Your task to perform on an android device: uninstall "DoorDash - Dasher" Image 0: 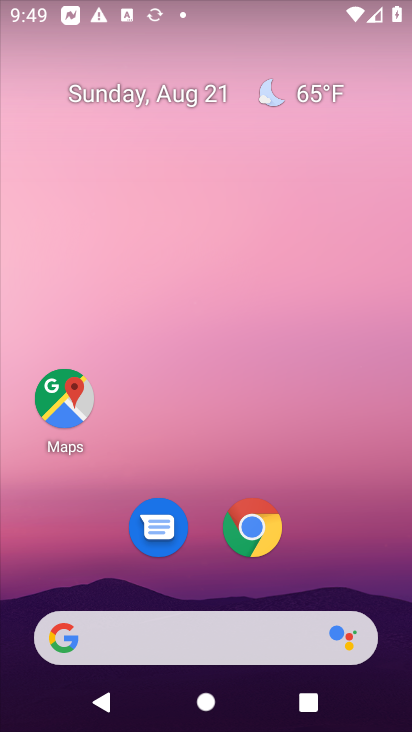
Step 0: drag from (205, 578) to (237, 6)
Your task to perform on an android device: uninstall "DoorDash - Dasher" Image 1: 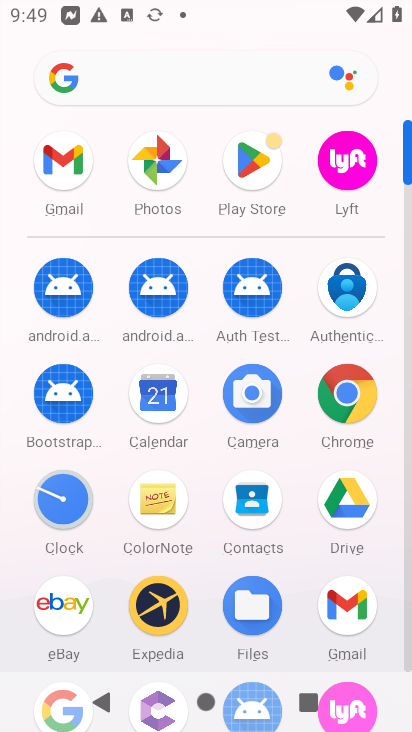
Step 1: click (260, 187)
Your task to perform on an android device: uninstall "DoorDash - Dasher" Image 2: 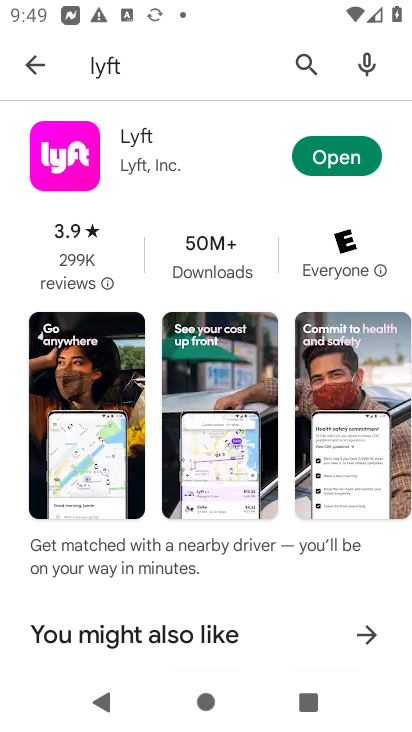
Step 2: click (150, 61)
Your task to perform on an android device: uninstall "DoorDash - Dasher" Image 3: 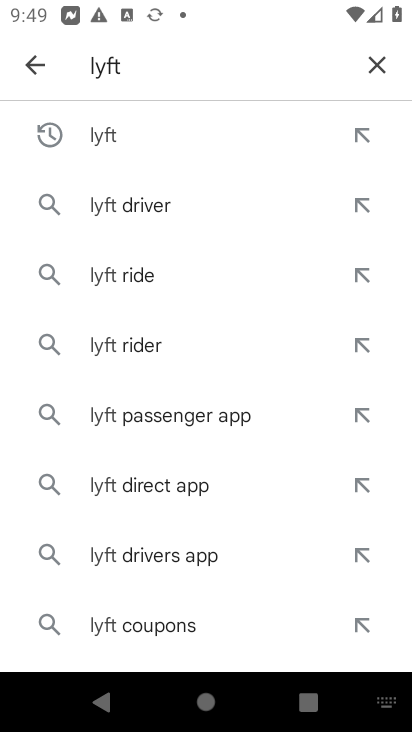
Step 3: click (370, 71)
Your task to perform on an android device: uninstall "DoorDash - Dasher" Image 4: 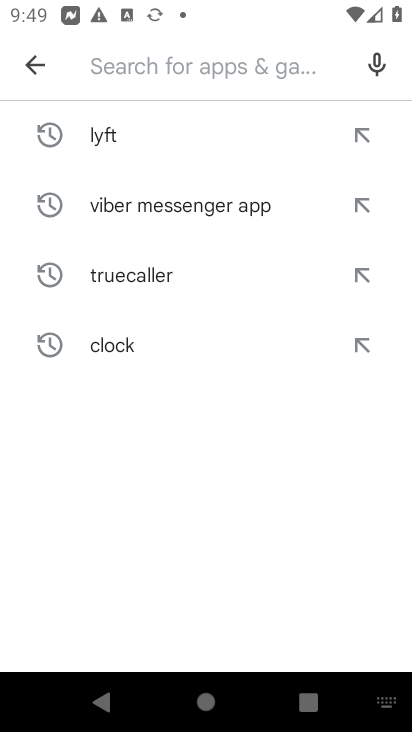
Step 4: type "DoorDash - dasher"
Your task to perform on an android device: uninstall "DoorDash - Dasher" Image 5: 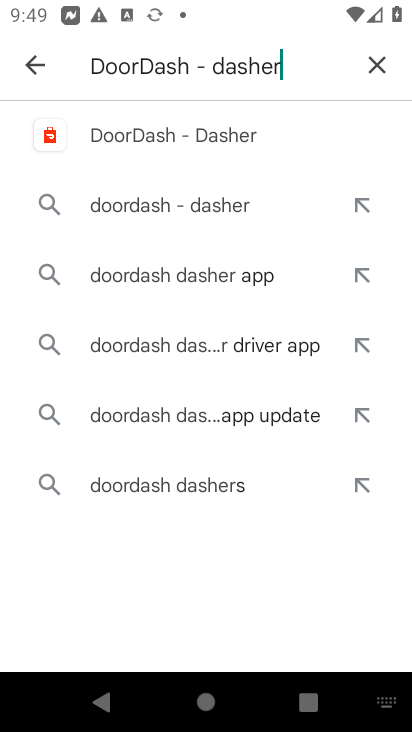
Step 5: click (172, 149)
Your task to perform on an android device: uninstall "DoorDash - Dasher" Image 6: 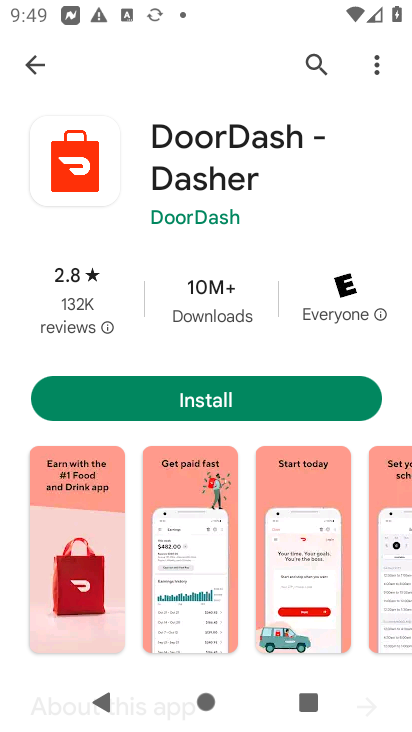
Step 6: task complete